Your task to perform on an android device: Open the stopwatch Image 0: 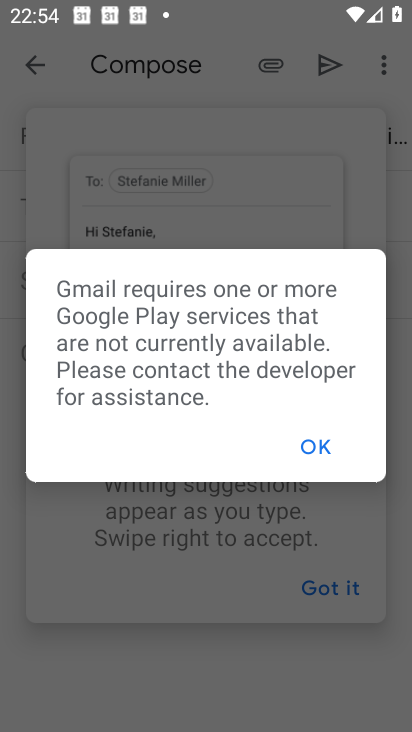
Step 0: press home button
Your task to perform on an android device: Open the stopwatch Image 1: 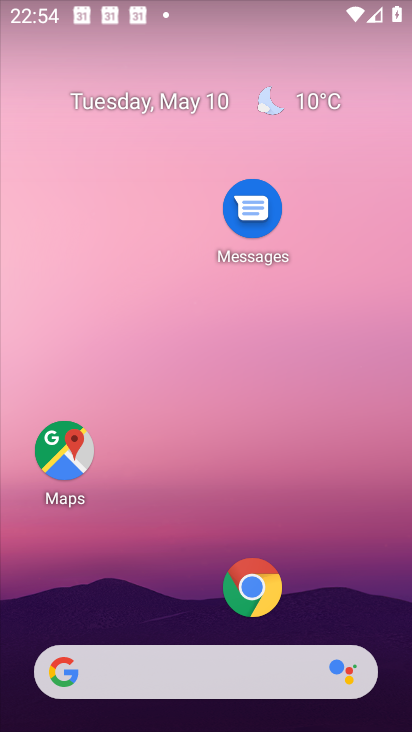
Step 1: drag from (173, 606) to (222, 78)
Your task to perform on an android device: Open the stopwatch Image 2: 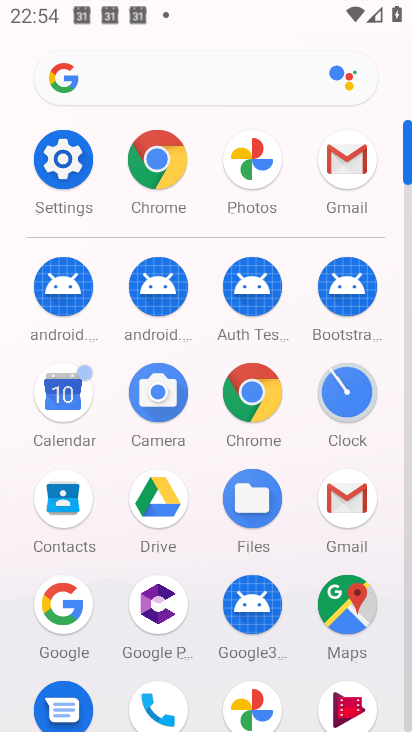
Step 2: click (348, 412)
Your task to perform on an android device: Open the stopwatch Image 3: 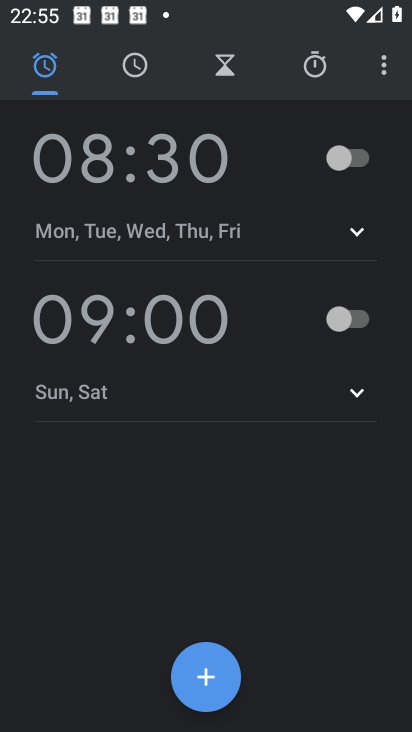
Step 3: click (311, 66)
Your task to perform on an android device: Open the stopwatch Image 4: 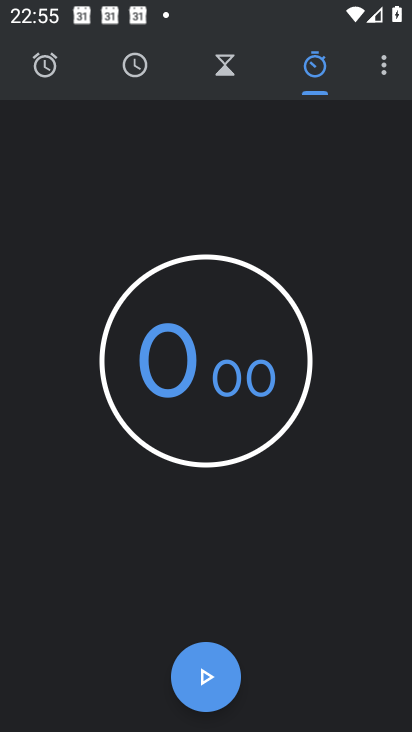
Step 4: click (319, 81)
Your task to perform on an android device: Open the stopwatch Image 5: 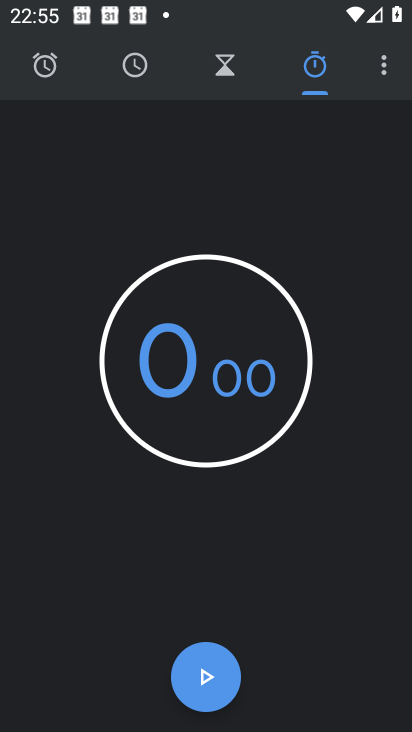
Step 5: click (219, 688)
Your task to perform on an android device: Open the stopwatch Image 6: 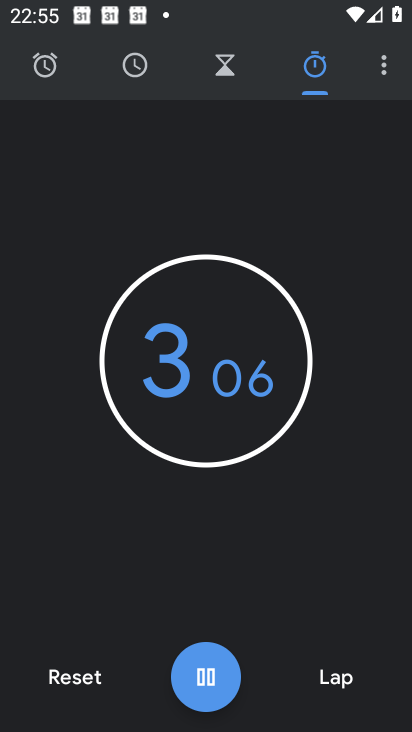
Step 6: task complete